Your task to perform on an android device: open wifi settings Image 0: 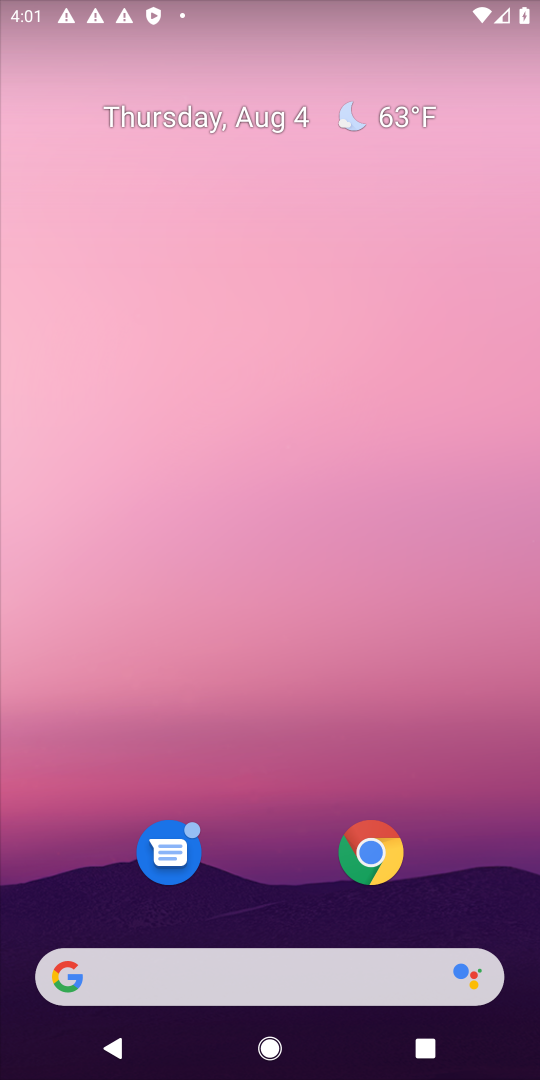
Step 0: drag from (282, 779) to (281, 87)
Your task to perform on an android device: open wifi settings Image 1: 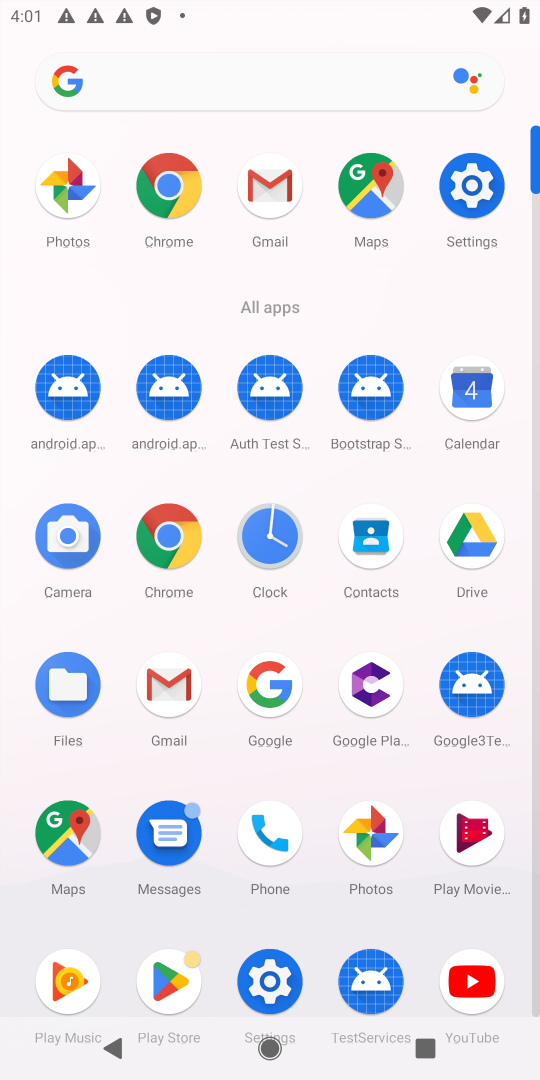
Step 1: click (470, 190)
Your task to perform on an android device: open wifi settings Image 2: 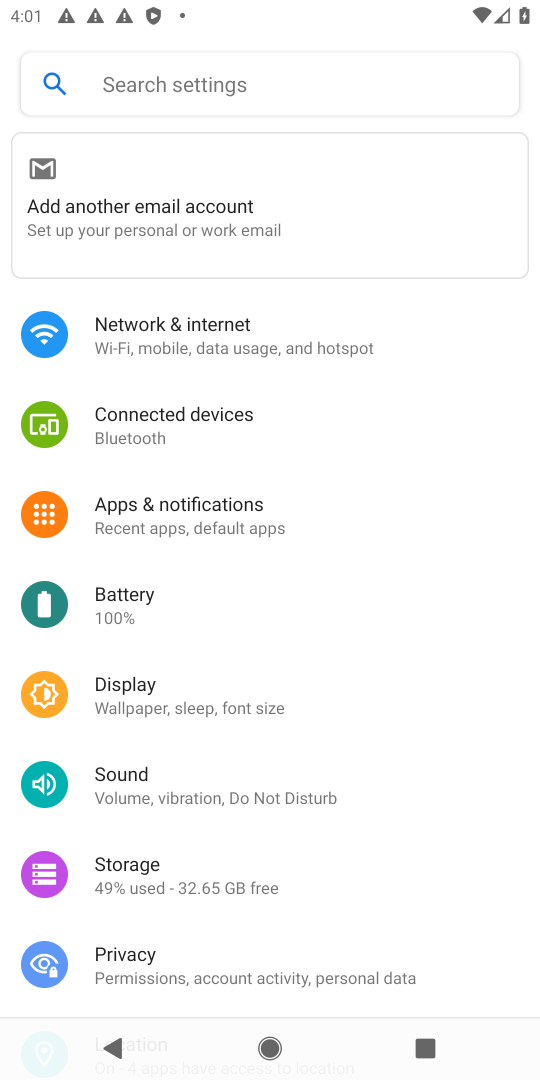
Step 2: click (203, 353)
Your task to perform on an android device: open wifi settings Image 3: 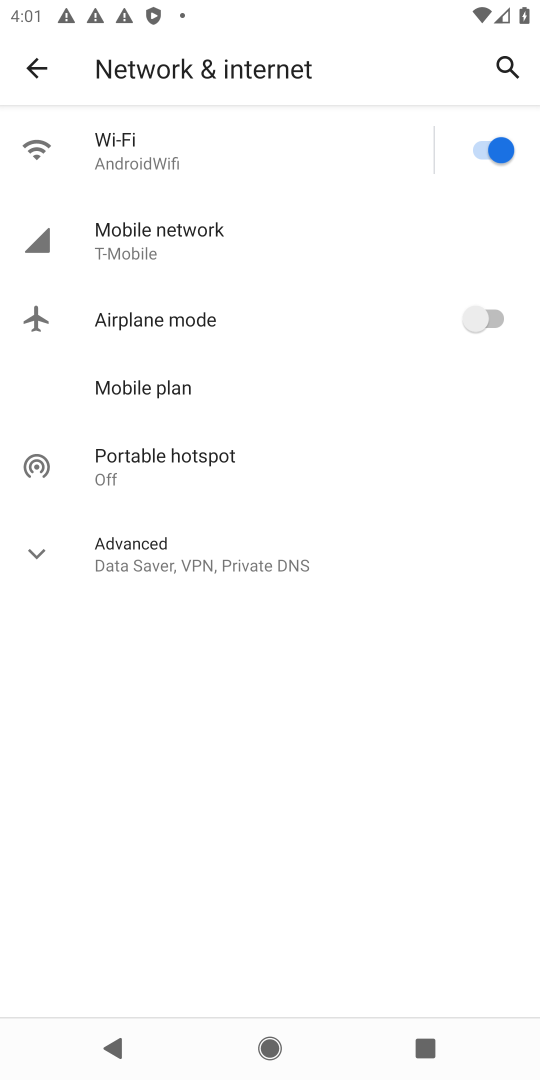
Step 3: click (126, 160)
Your task to perform on an android device: open wifi settings Image 4: 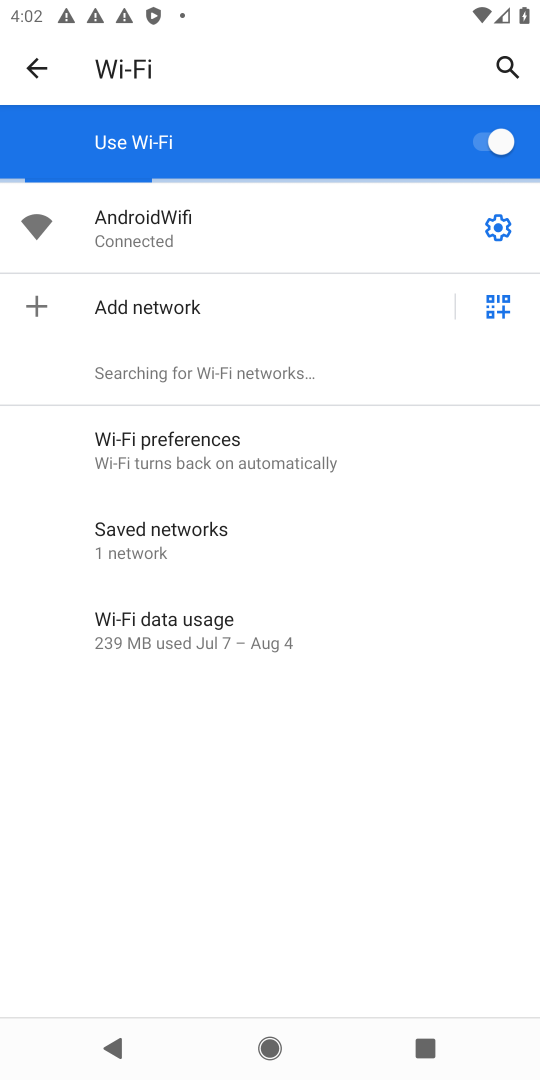
Step 4: task complete